Your task to perform on an android device: toggle sleep mode Image 0: 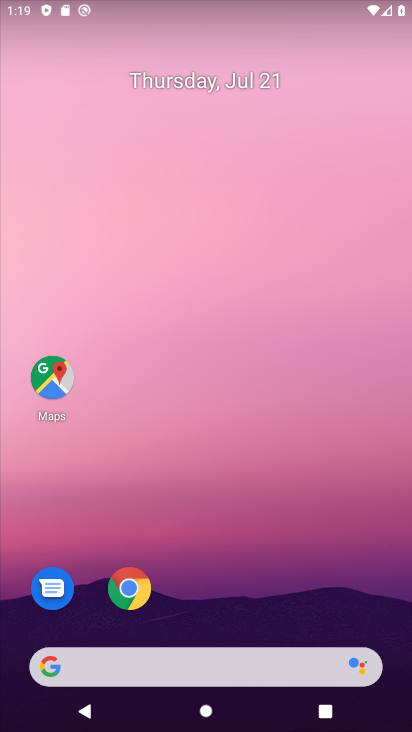
Step 0: drag from (242, 646) to (189, 22)
Your task to perform on an android device: toggle sleep mode Image 1: 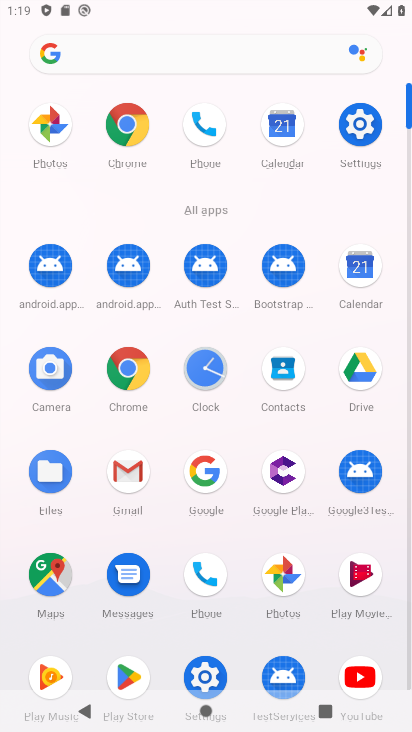
Step 1: click (363, 136)
Your task to perform on an android device: toggle sleep mode Image 2: 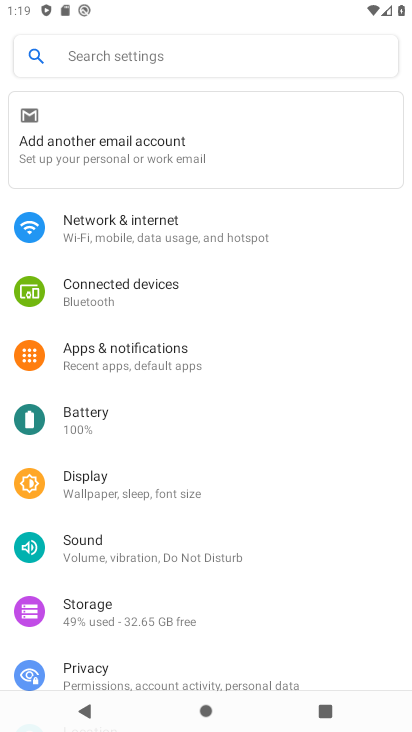
Step 2: click (113, 486)
Your task to perform on an android device: toggle sleep mode Image 3: 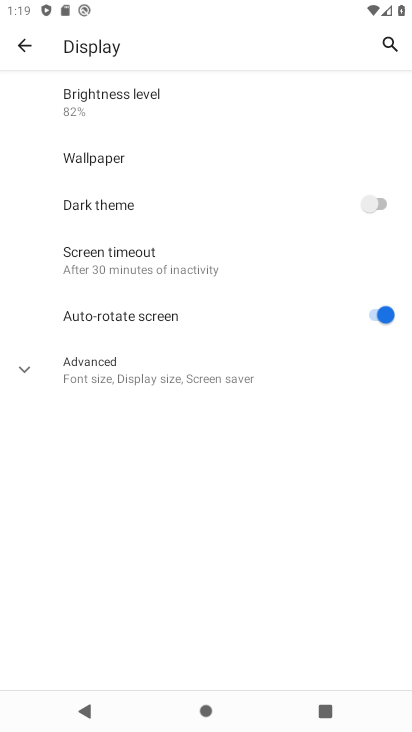
Step 3: click (141, 376)
Your task to perform on an android device: toggle sleep mode Image 4: 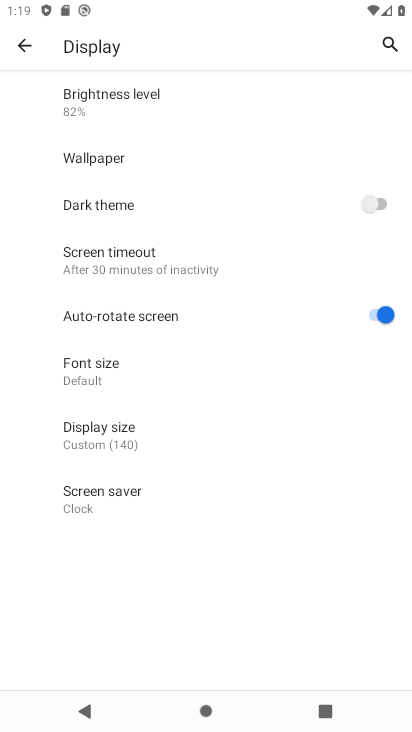
Step 4: task complete